Your task to perform on an android device: read, delete, or share a saved page in the chrome app Image 0: 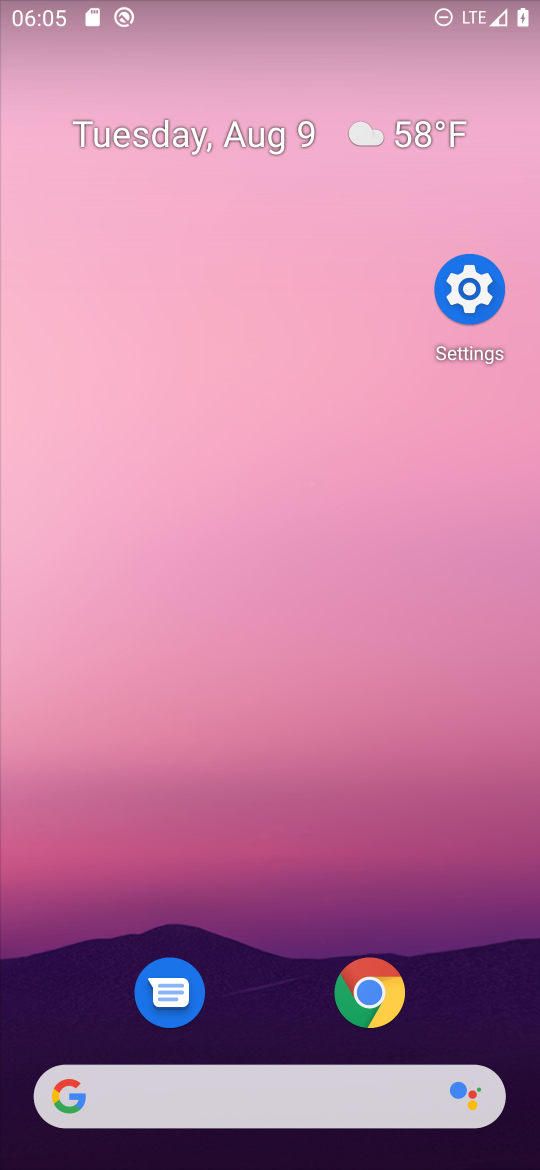
Step 0: drag from (276, 1081) to (534, 217)
Your task to perform on an android device: read, delete, or share a saved page in the chrome app Image 1: 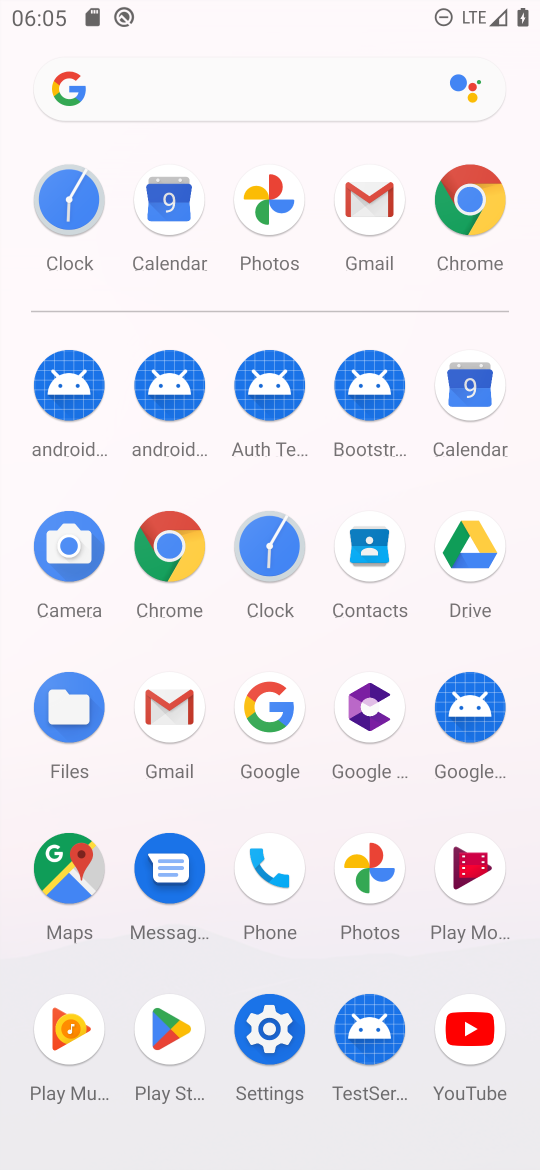
Step 1: click (159, 660)
Your task to perform on an android device: read, delete, or share a saved page in the chrome app Image 2: 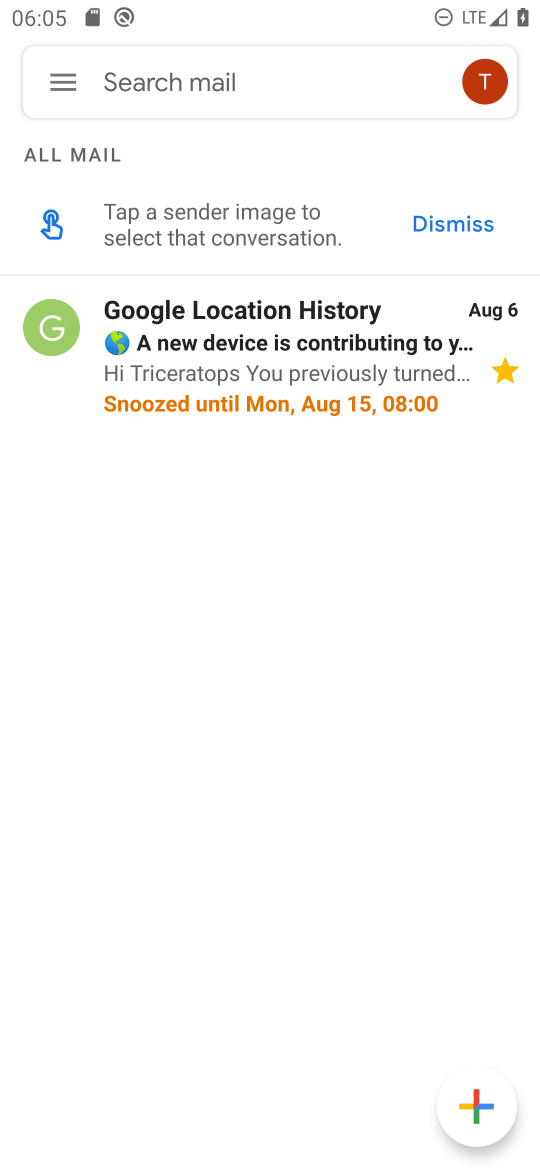
Step 2: click (485, 86)
Your task to perform on an android device: read, delete, or share a saved page in the chrome app Image 3: 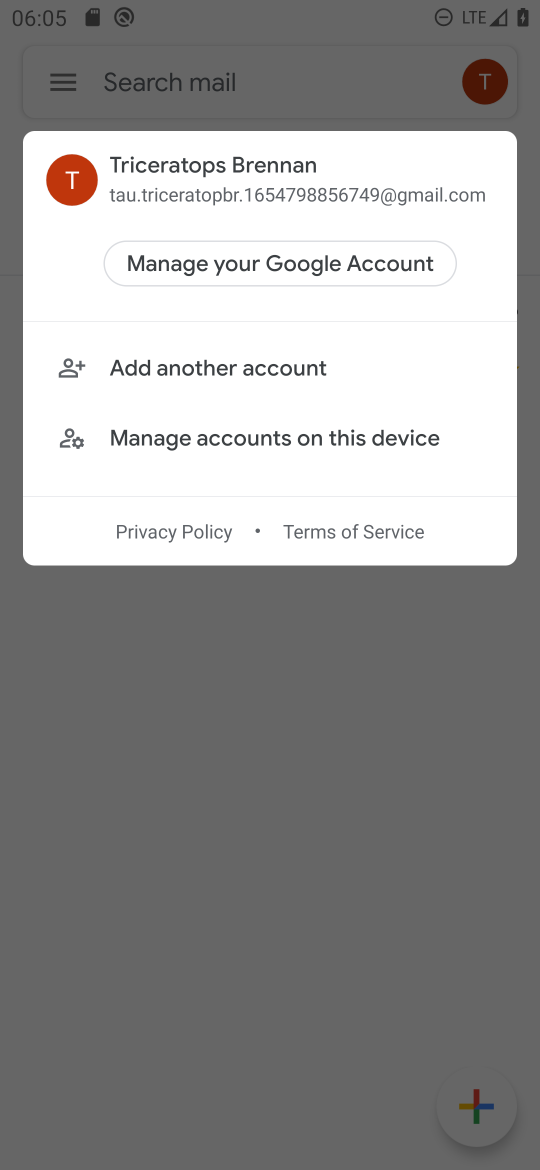
Step 3: click (309, 346)
Your task to perform on an android device: read, delete, or share a saved page in the chrome app Image 4: 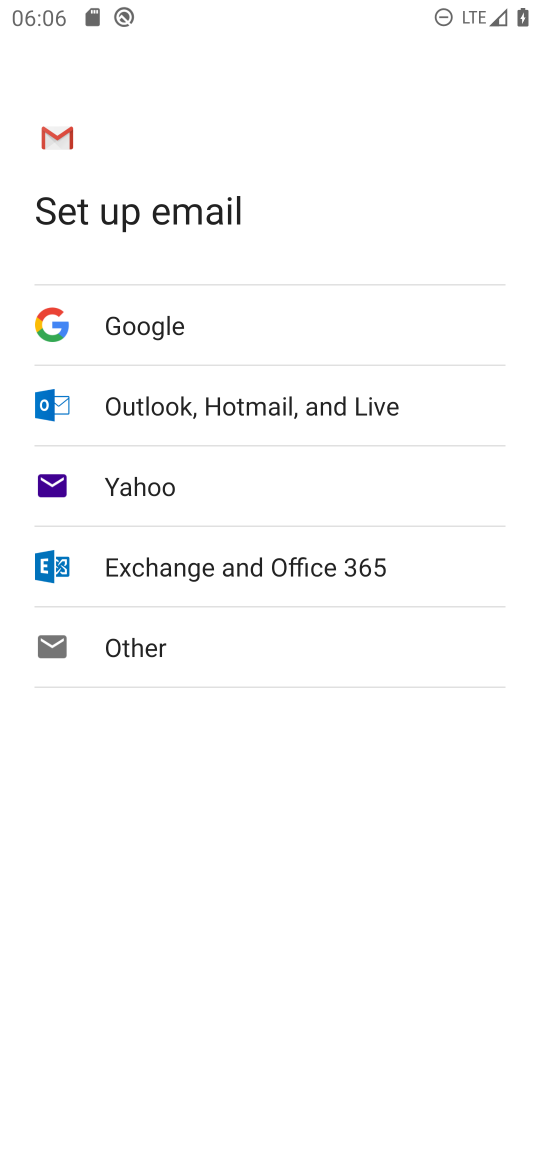
Step 4: press back button
Your task to perform on an android device: read, delete, or share a saved page in the chrome app Image 5: 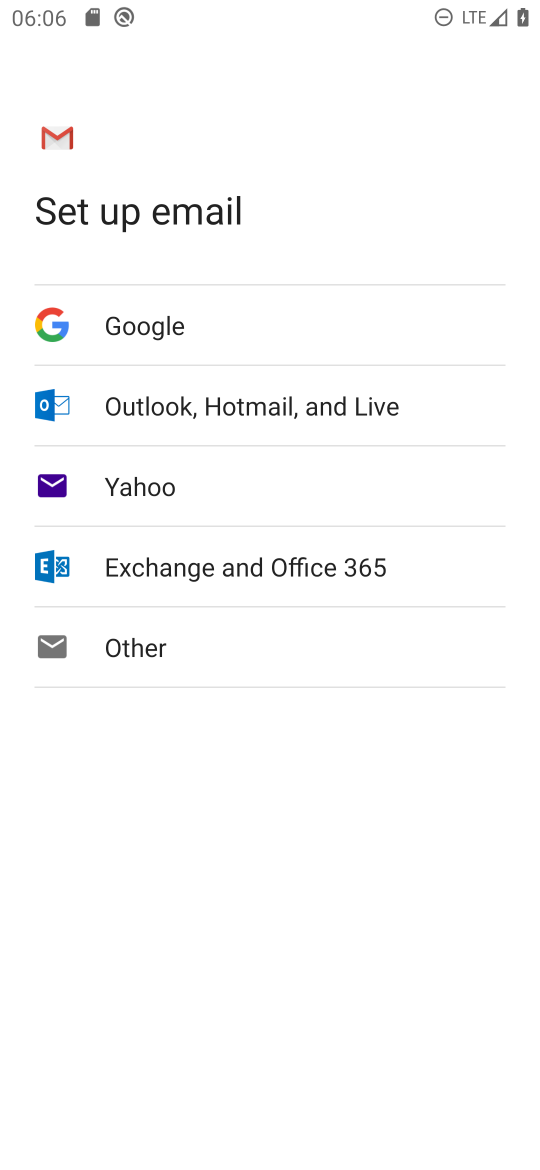
Step 5: press back button
Your task to perform on an android device: read, delete, or share a saved page in the chrome app Image 6: 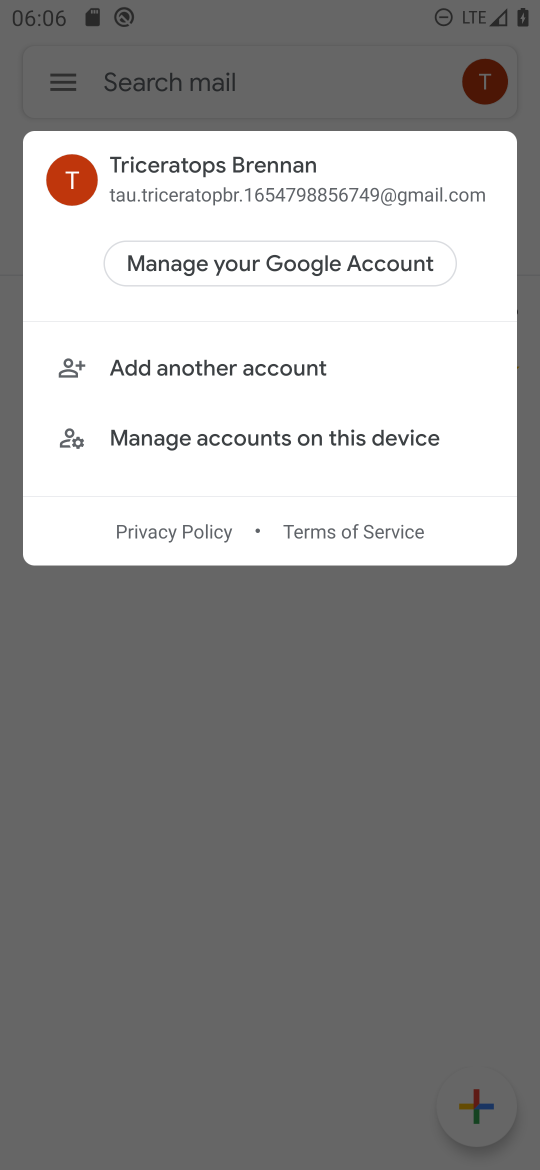
Step 6: click (448, 906)
Your task to perform on an android device: read, delete, or share a saved page in the chrome app Image 7: 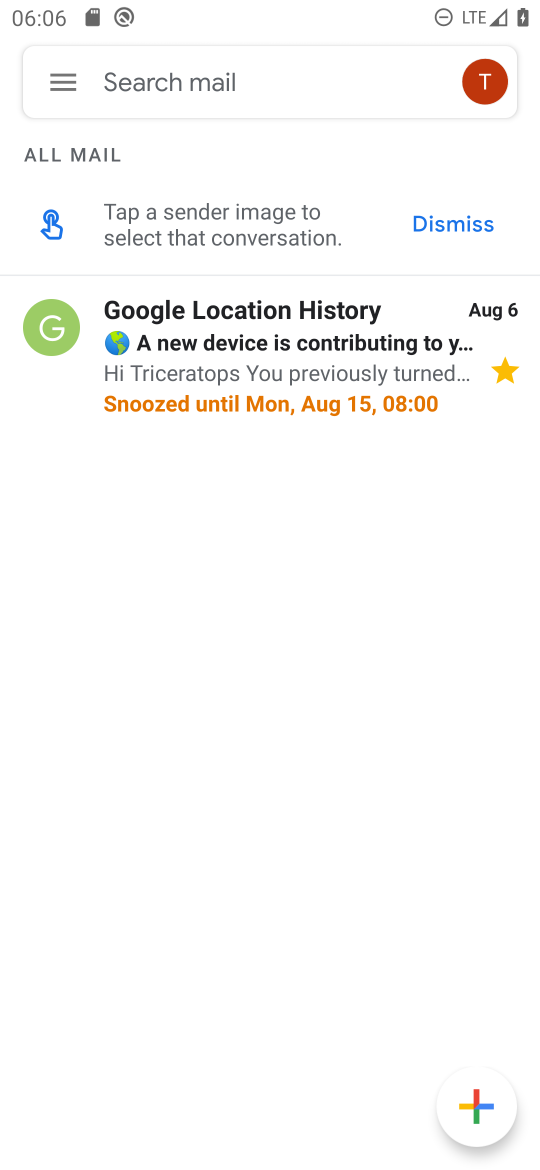
Step 7: press home button
Your task to perform on an android device: read, delete, or share a saved page in the chrome app Image 8: 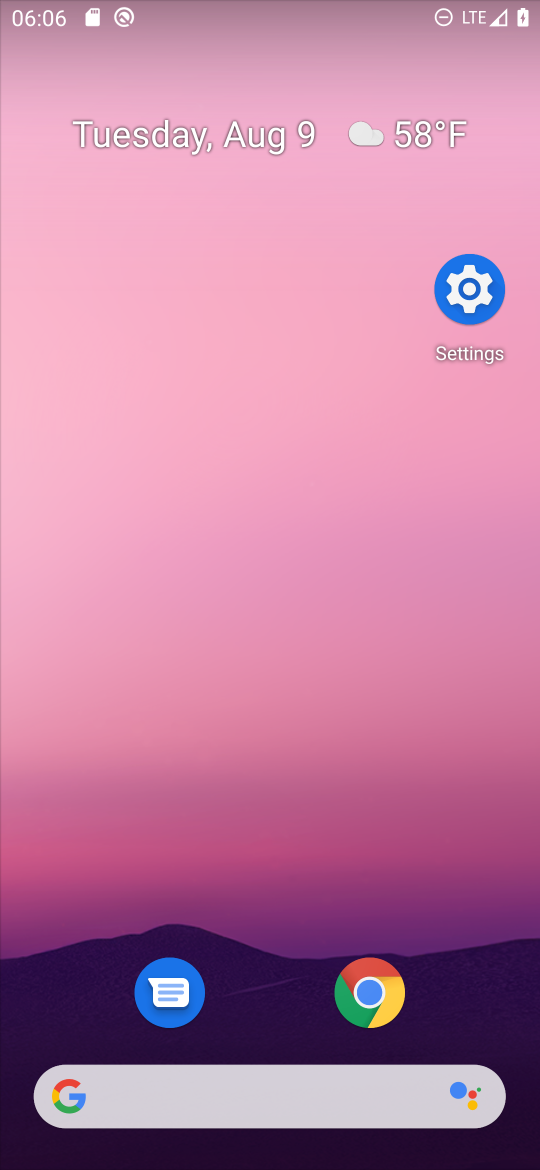
Step 8: drag from (268, 1065) to (501, 128)
Your task to perform on an android device: read, delete, or share a saved page in the chrome app Image 9: 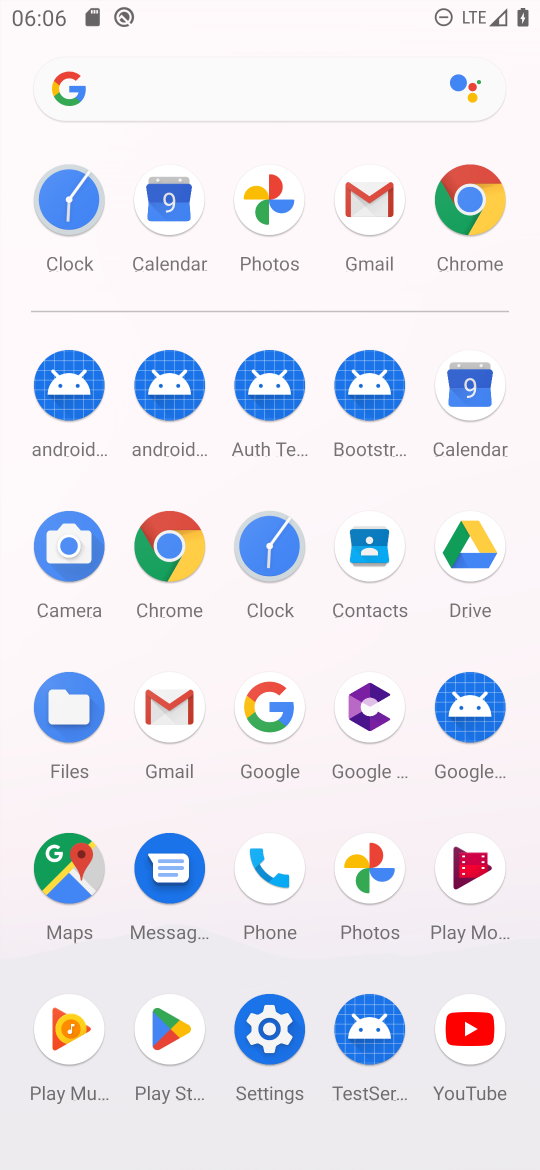
Step 9: click (176, 571)
Your task to perform on an android device: read, delete, or share a saved page in the chrome app Image 10: 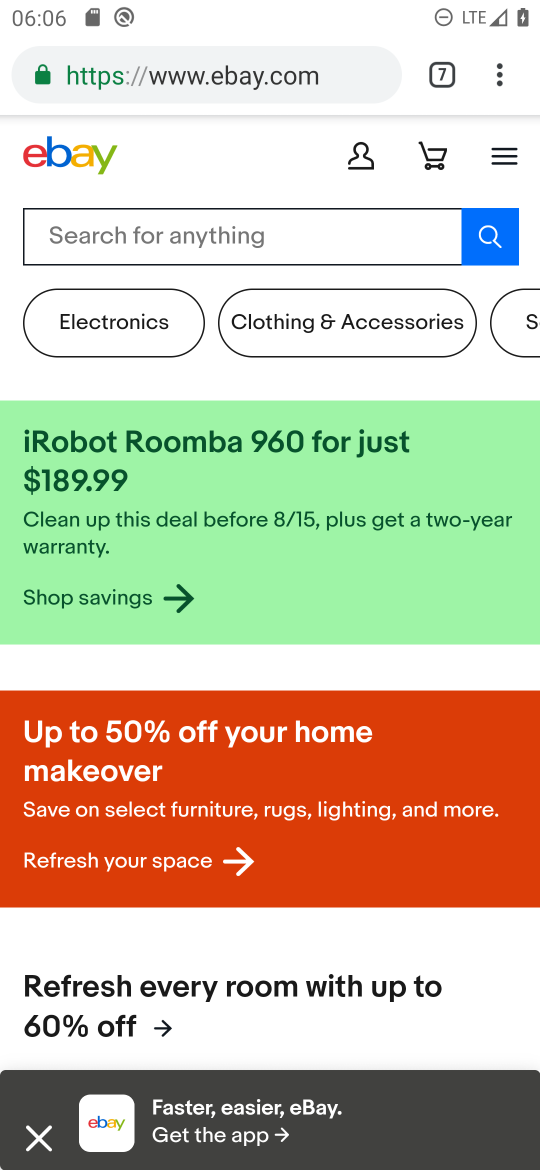
Step 10: click (505, 62)
Your task to perform on an android device: read, delete, or share a saved page in the chrome app Image 11: 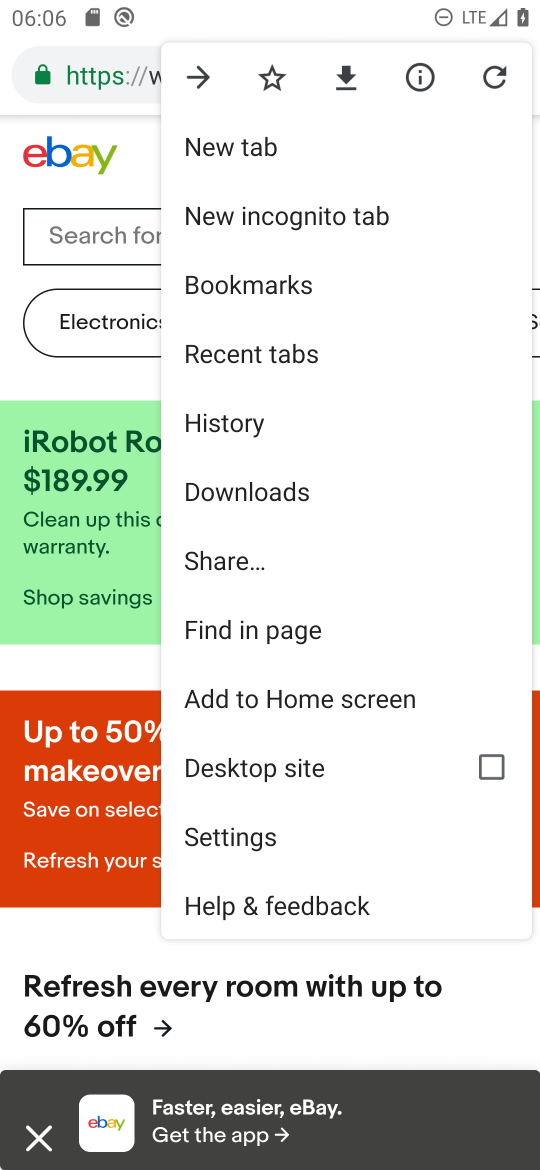
Step 11: click (287, 481)
Your task to perform on an android device: read, delete, or share a saved page in the chrome app Image 12: 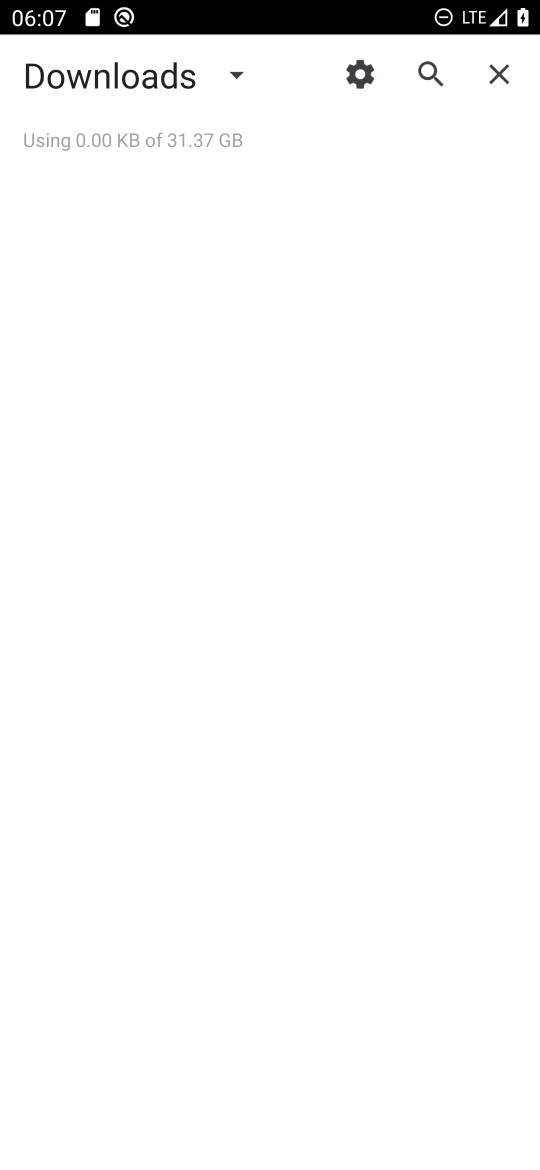
Step 12: task complete